Your task to perform on an android device: Turn off the flashlight Image 0: 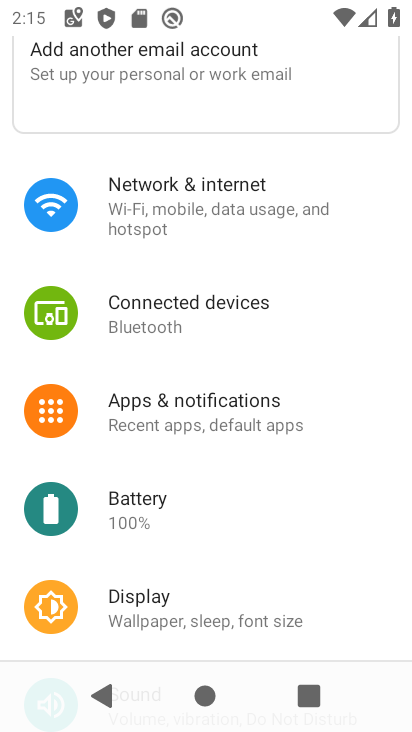
Step 0: press home button
Your task to perform on an android device: Turn off the flashlight Image 1: 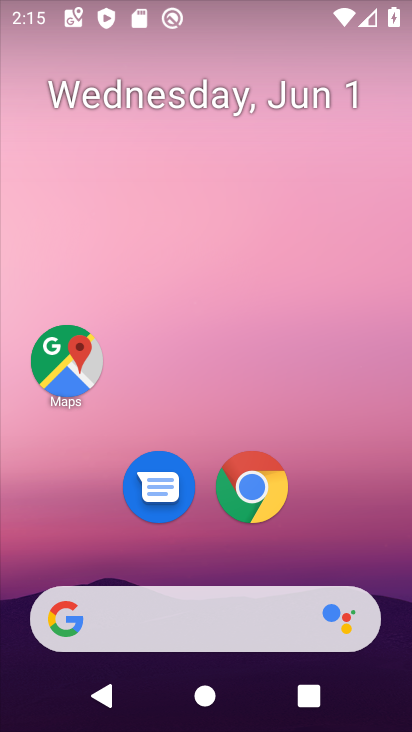
Step 1: drag from (262, 4) to (310, 417)
Your task to perform on an android device: Turn off the flashlight Image 2: 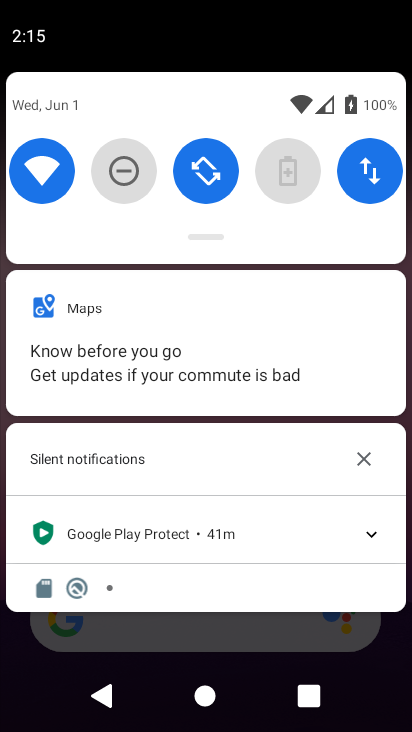
Step 2: drag from (237, 133) to (248, 372)
Your task to perform on an android device: Turn off the flashlight Image 3: 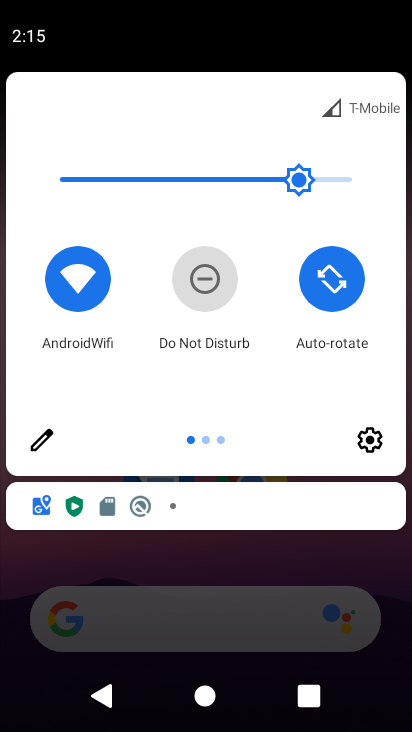
Step 3: click (43, 440)
Your task to perform on an android device: Turn off the flashlight Image 4: 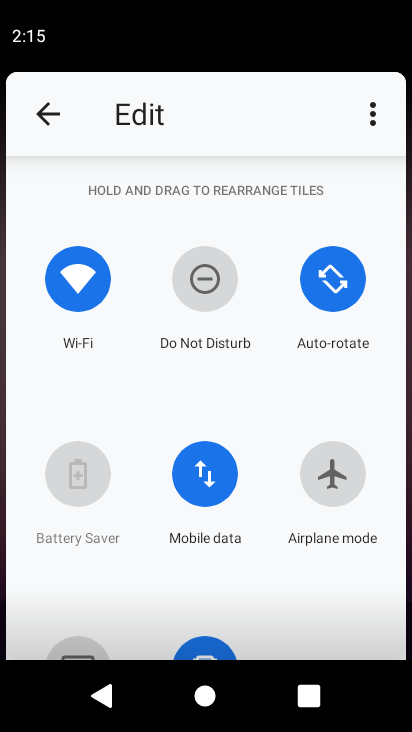
Step 4: task complete